Your task to perform on an android device: Show me the alarms in the clock app Image 0: 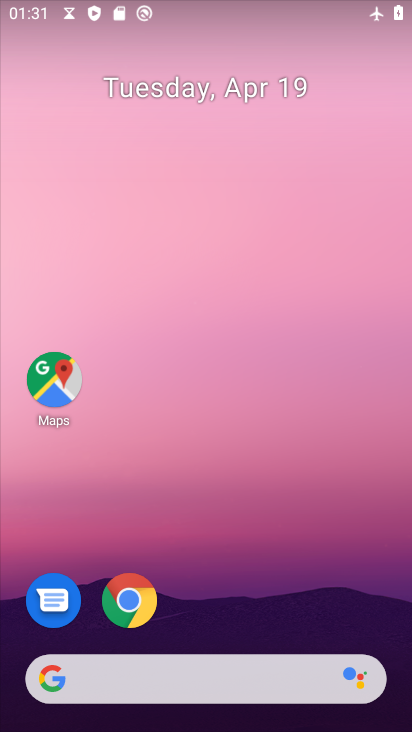
Step 0: drag from (213, 645) to (340, 18)
Your task to perform on an android device: Show me the alarms in the clock app Image 1: 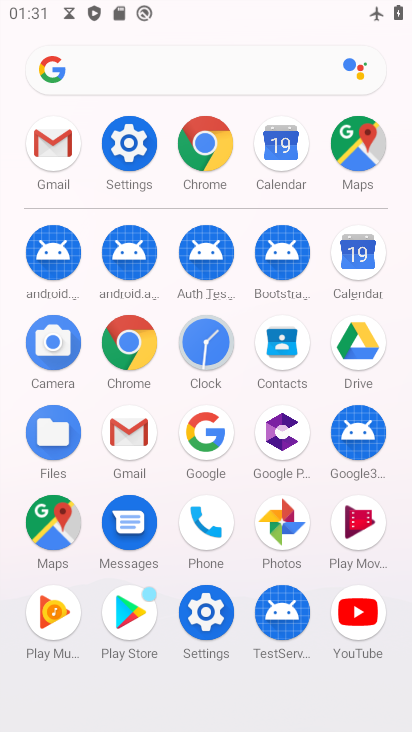
Step 1: click (207, 349)
Your task to perform on an android device: Show me the alarms in the clock app Image 2: 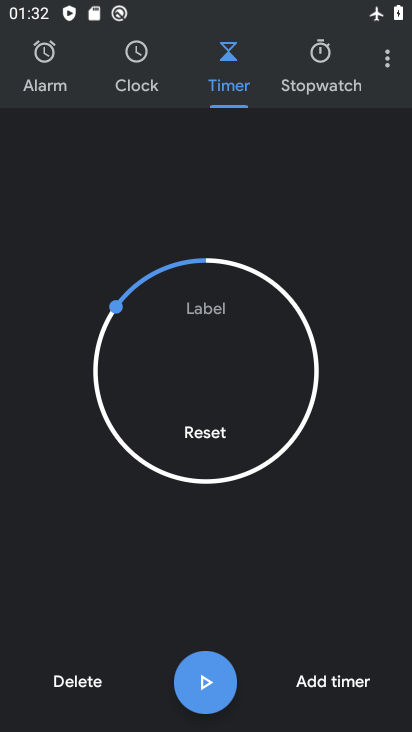
Step 2: click (36, 88)
Your task to perform on an android device: Show me the alarms in the clock app Image 3: 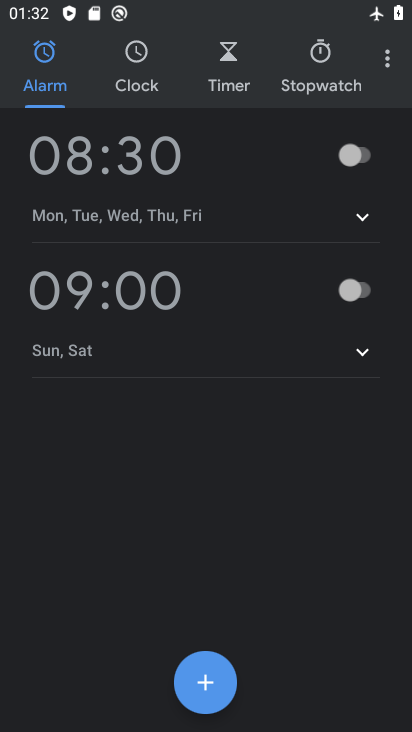
Step 3: click (215, 668)
Your task to perform on an android device: Show me the alarms in the clock app Image 4: 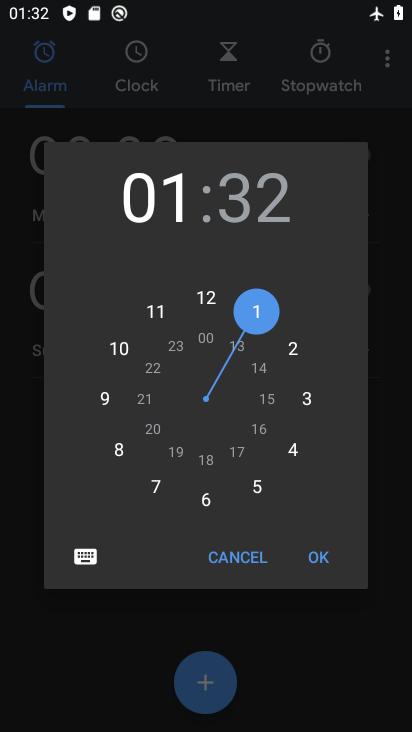
Step 4: click (305, 561)
Your task to perform on an android device: Show me the alarms in the clock app Image 5: 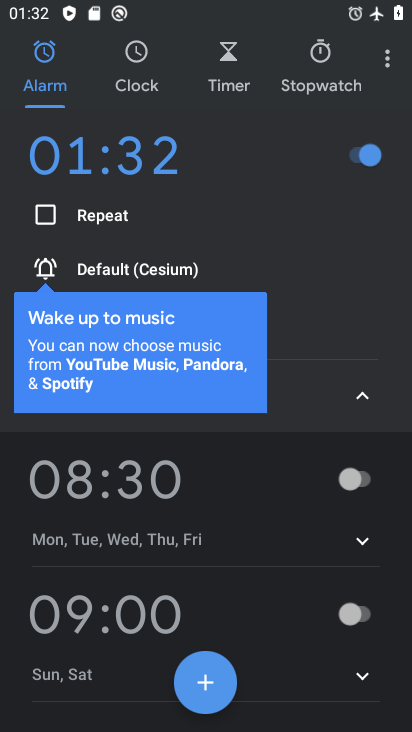
Step 5: task complete